Your task to perform on an android device: delete browsing data in the chrome app Image 0: 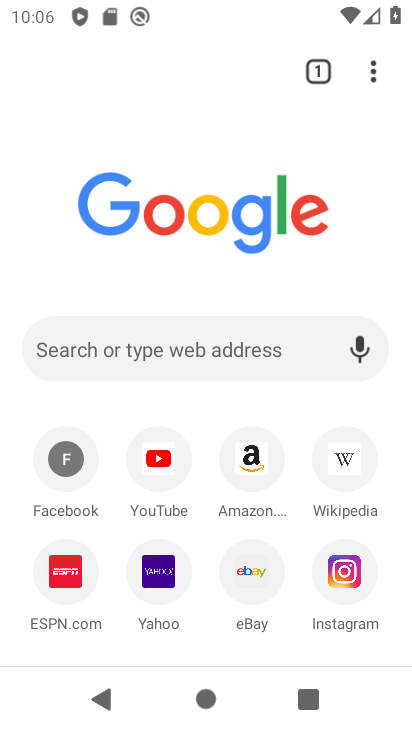
Step 0: click (367, 76)
Your task to perform on an android device: delete browsing data in the chrome app Image 1: 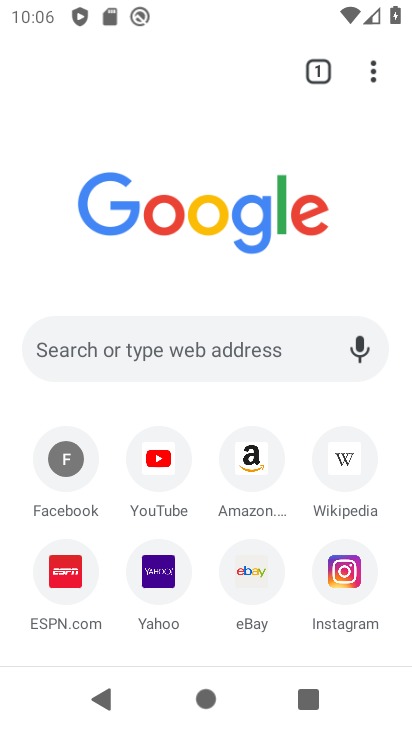
Step 1: click (367, 77)
Your task to perform on an android device: delete browsing data in the chrome app Image 2: 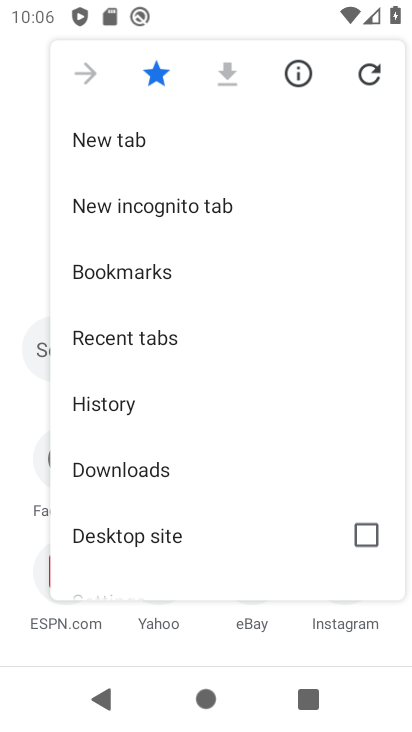
Step 2: click (177, 394)
Your task to perform on an android device: delete browsing data in the chrome app Image 3: 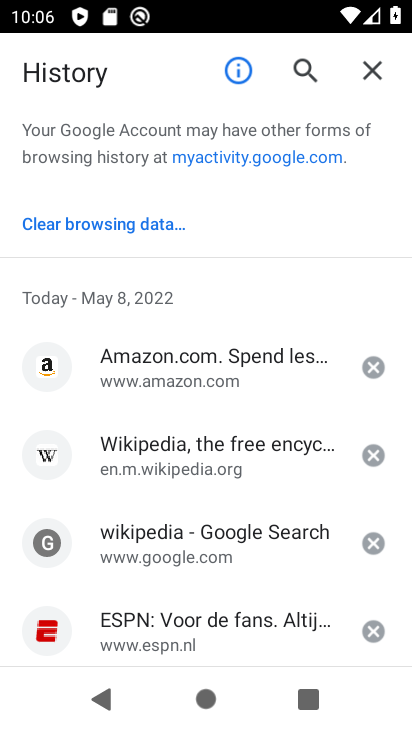
Step 3: click (105, 210)
Your task to perform on an android device: delete browsing data in the chrome app Image 4: 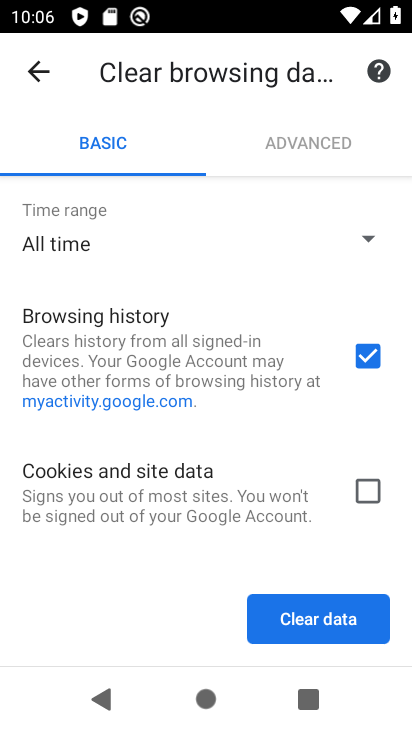
Step 4: click (306, 535)
Your task to perform on an android device: delete browsing data in the chrome app Image 5: 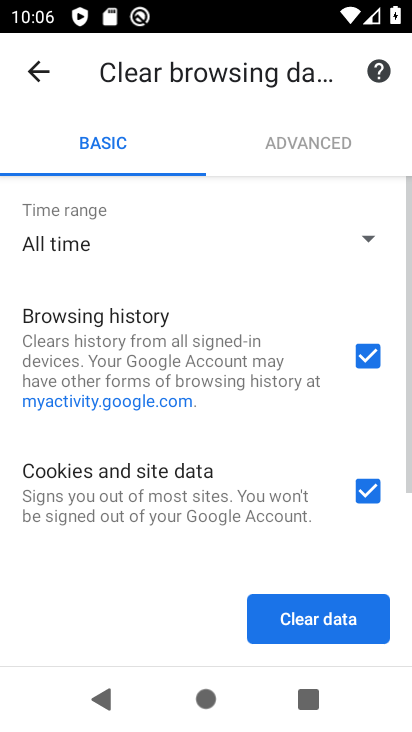
Step 5: drag from (302, 517) to (292, 203)
Your task to perform on an android device: delete browsing data in the chrome app Image 6: 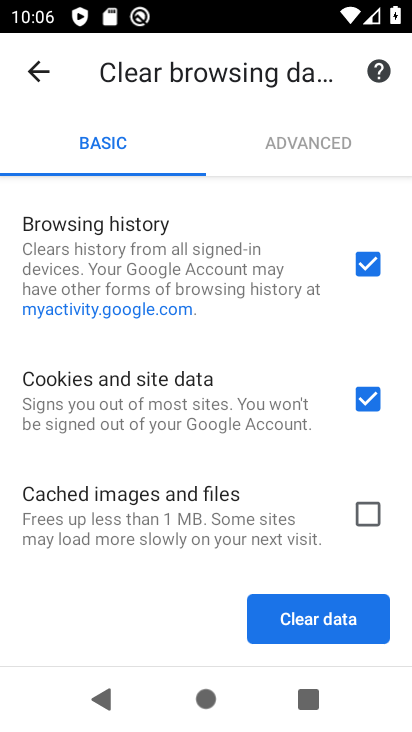
Step 6: click (340, 521)
Your task to perform on an android device: delete browsing data in the chrome app Image 7: 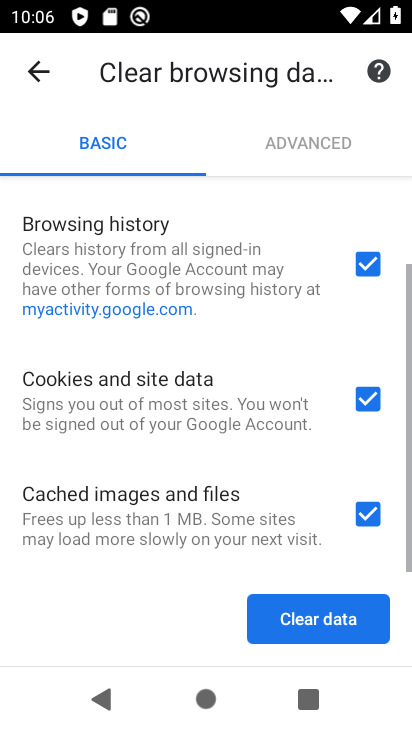
Step 7: click (299, 613)
Your task to perform on an android device: delete browsing data in the chrome app Image 8: 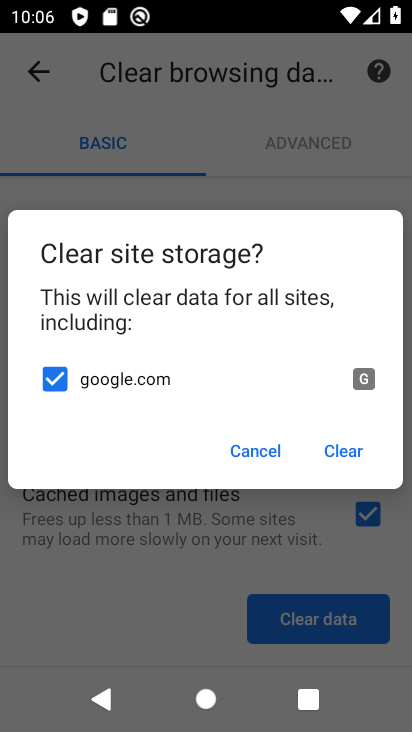
Step 8: click (351, 456)
Your task to perform on an android device: delete browsing data in the chrome app Image 9: 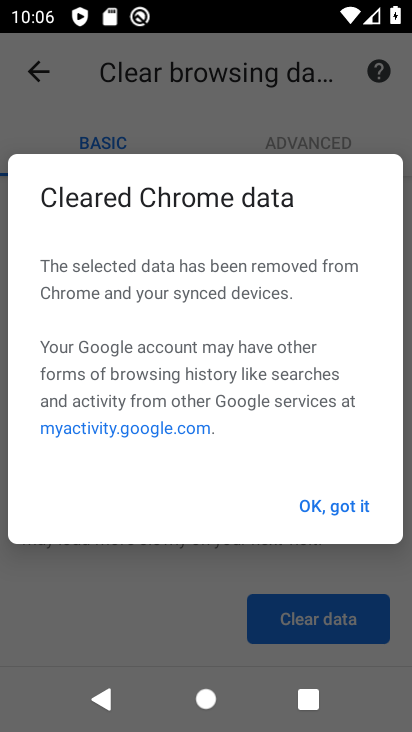
Step 9: click (350, 510)
Your task to perform on an android device: delete browsing data in the chrome app Image 10: 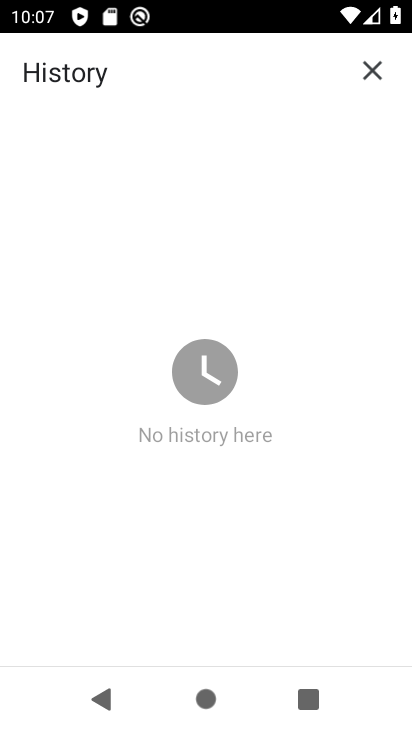
Step 10: task complete